Your task to perform on an android device: Open ESPN.com Image 0: 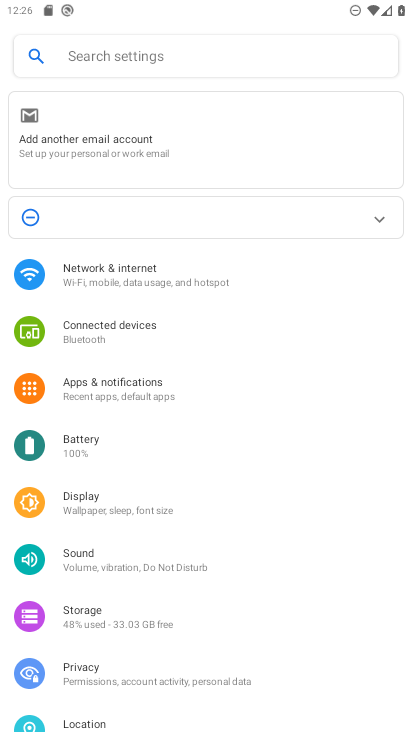
Step 0: press home button
Your task to perform on an android device: Open ESPN.com Image 1: 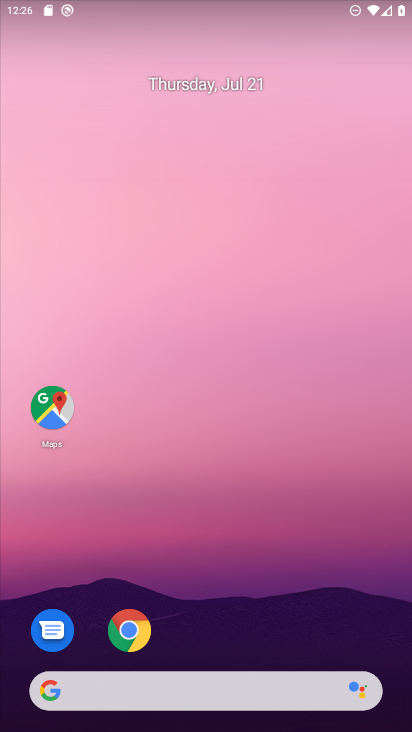
Step 1: click (120, 634)
Your task to perform on an android device: Open ESPN.com Image 2: 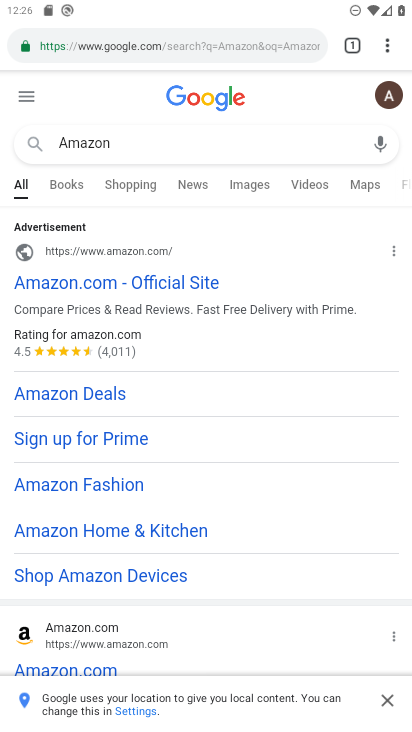
Step 2: click (240, 38)
Your task to perform on an android device: Open ESPN.com Image 3: 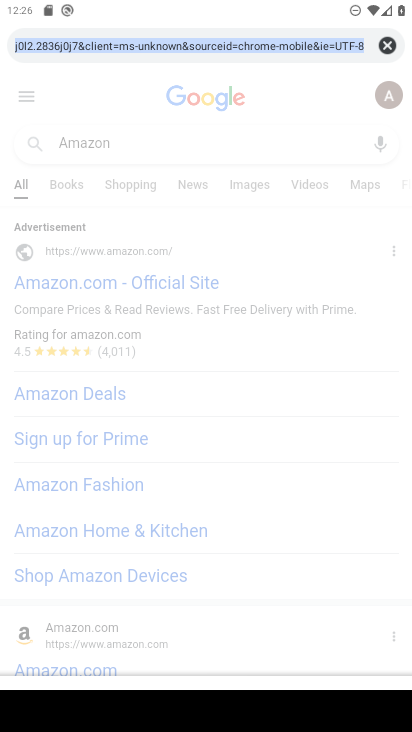
Step 3: click (392, 43)
Your task to perform on an android device: Open ESPN.com Image 4: 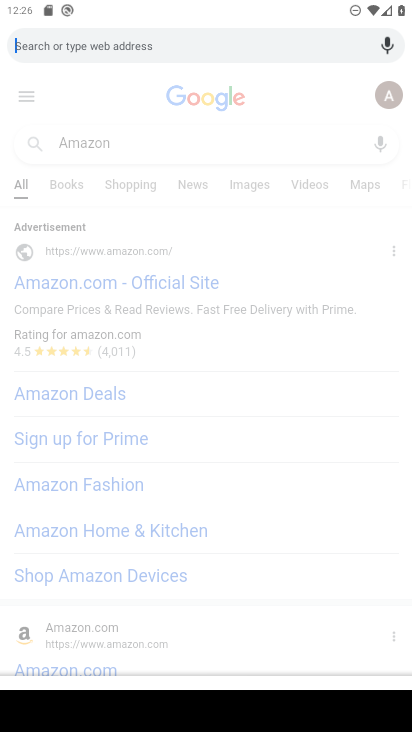
Step 4: type "ESPN.com"
Your task to perform on an android device: Open ESPN.com Image 5: 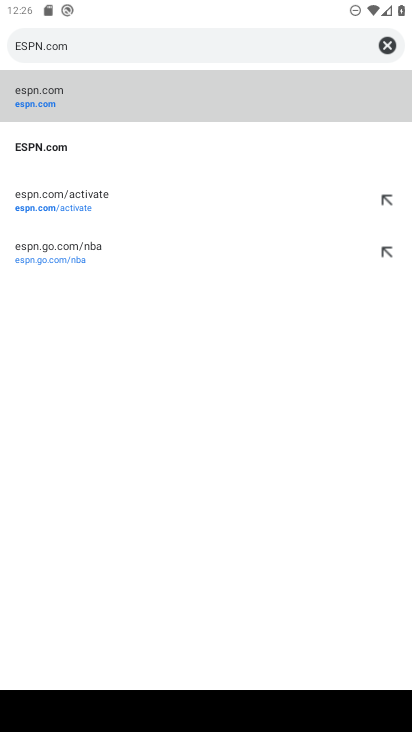
Step 5: click (51, 143)
Your task to perform on an android device: Open ESPN.com Image 6: 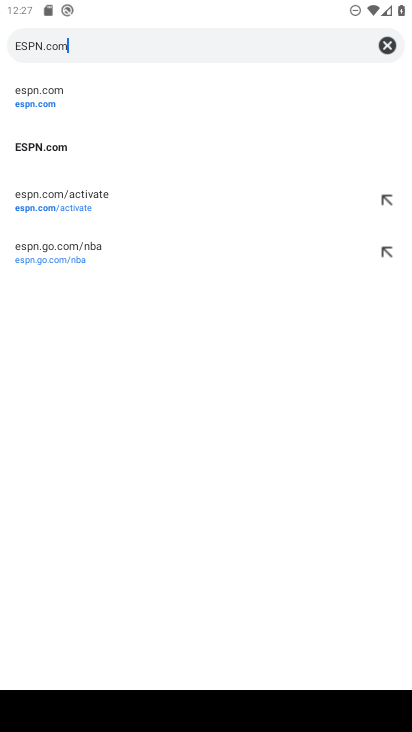
Step 6: click (60, 148)
Your task to perform on an android device: Open ESPN.com Image 7: 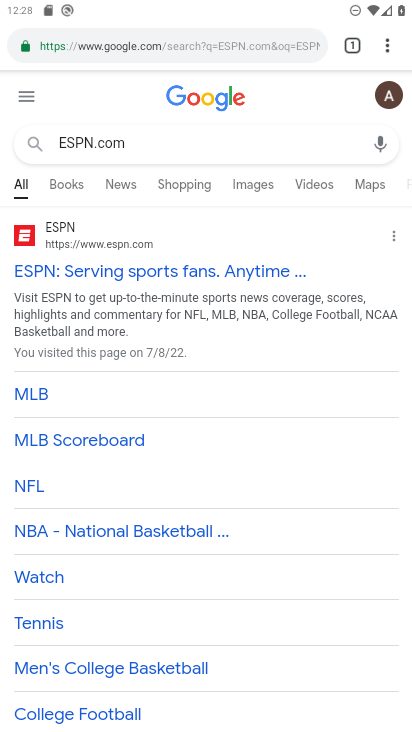
Step 7: task complete